Your task to perform on an android device: open a bookmark in the chrome app Image 0: 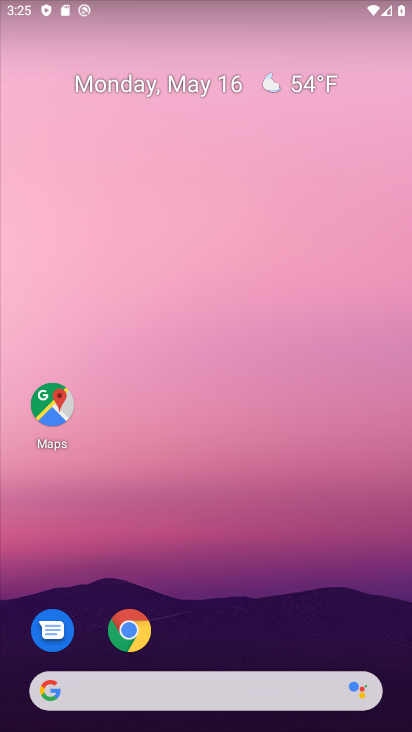
Step 0: click (135, 637)
Your task to perform on an android device: open a bookmark in the chrome app Image 1: 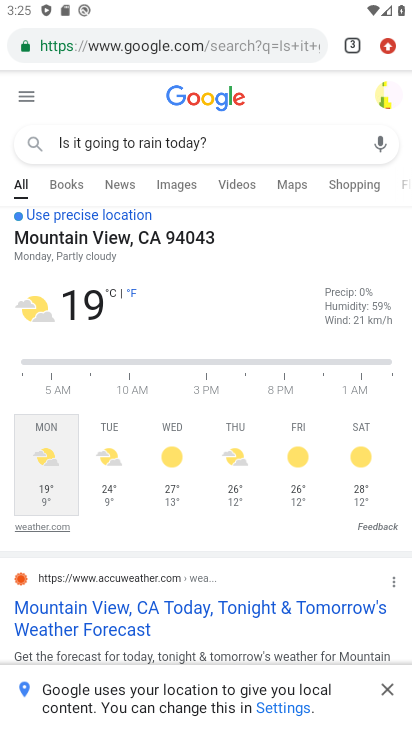
Step 1: click (391, 53)
Your task to perform on an android device: open a bookmark in the chrome app Image 2: 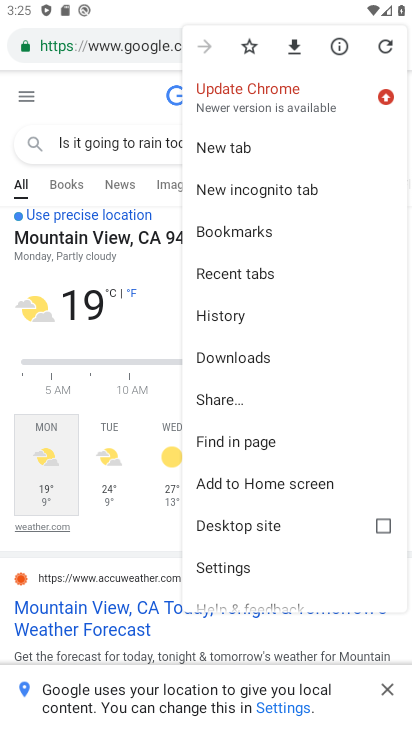
Step 2: click (257, 231)
Your task to perform on an android device: open a bookmark in the chrome app Image 3: 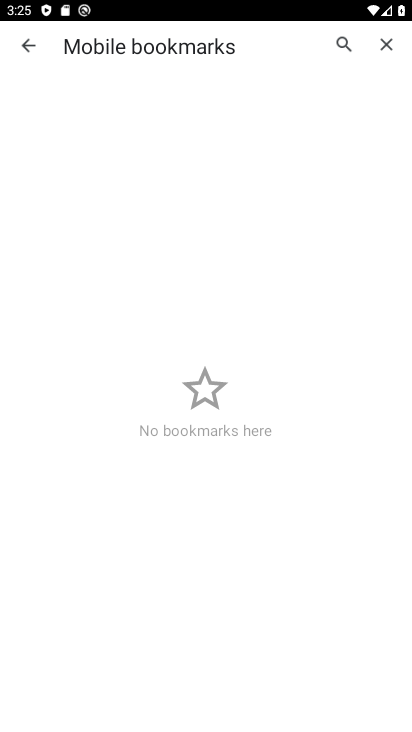
Step 3: task complete